Your task to perform on an android device: set an alarm Image 0: 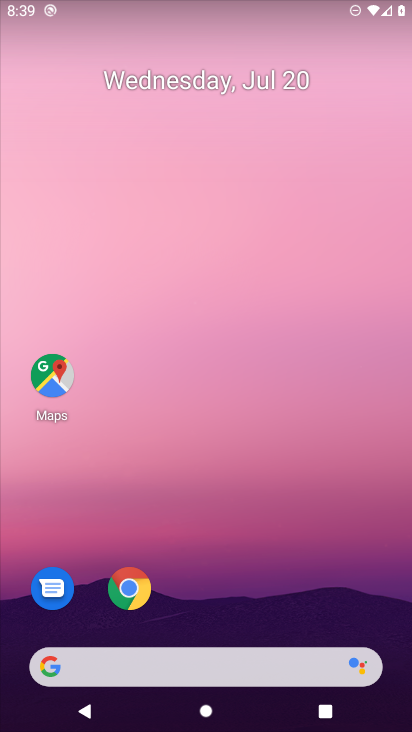
Step 0: drag from (47, 691) to (307, 63)
Your task to perform on an android device: set an alarm Image 1: 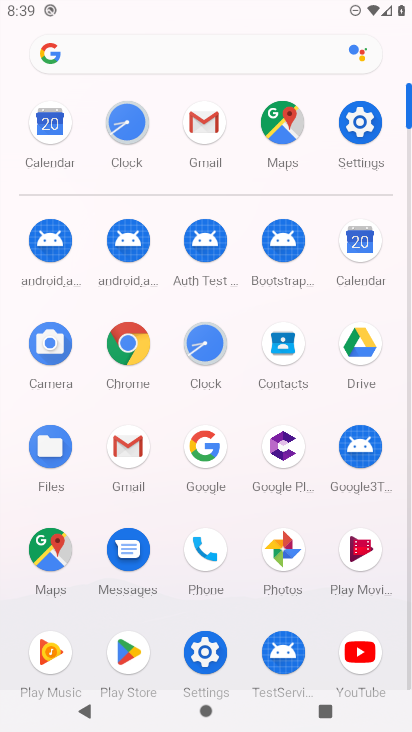
Step 1: click (206, 346)
Your task to perform on an android device: set an alarm Image 2: 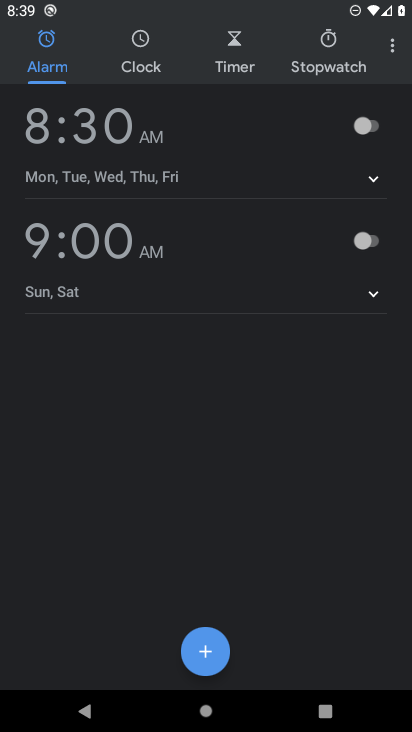
Step 2: click (362, 127)
Your task to perform on an android device: set an alarm Image 3: 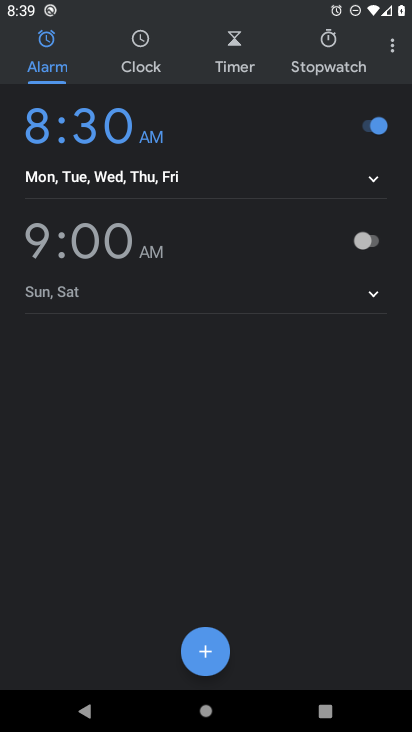
Step 3: task complete